Your task to perform on an android device: Search for the new nike air max 270 on Nike.com Image 0: 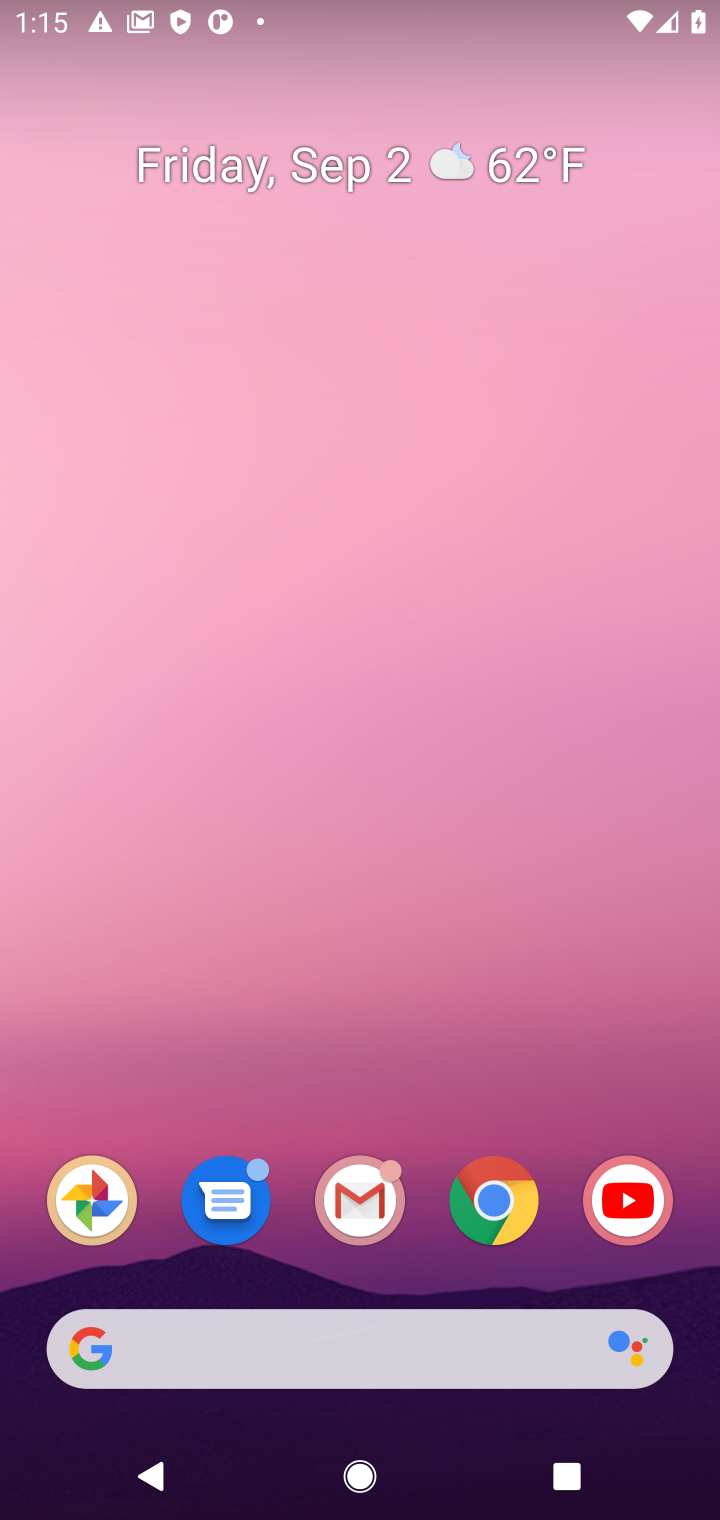
Step 0: click (508, 1192)
Your task to perform on an android device: Search for the new nike air max 270 on Nike.com Image 1: 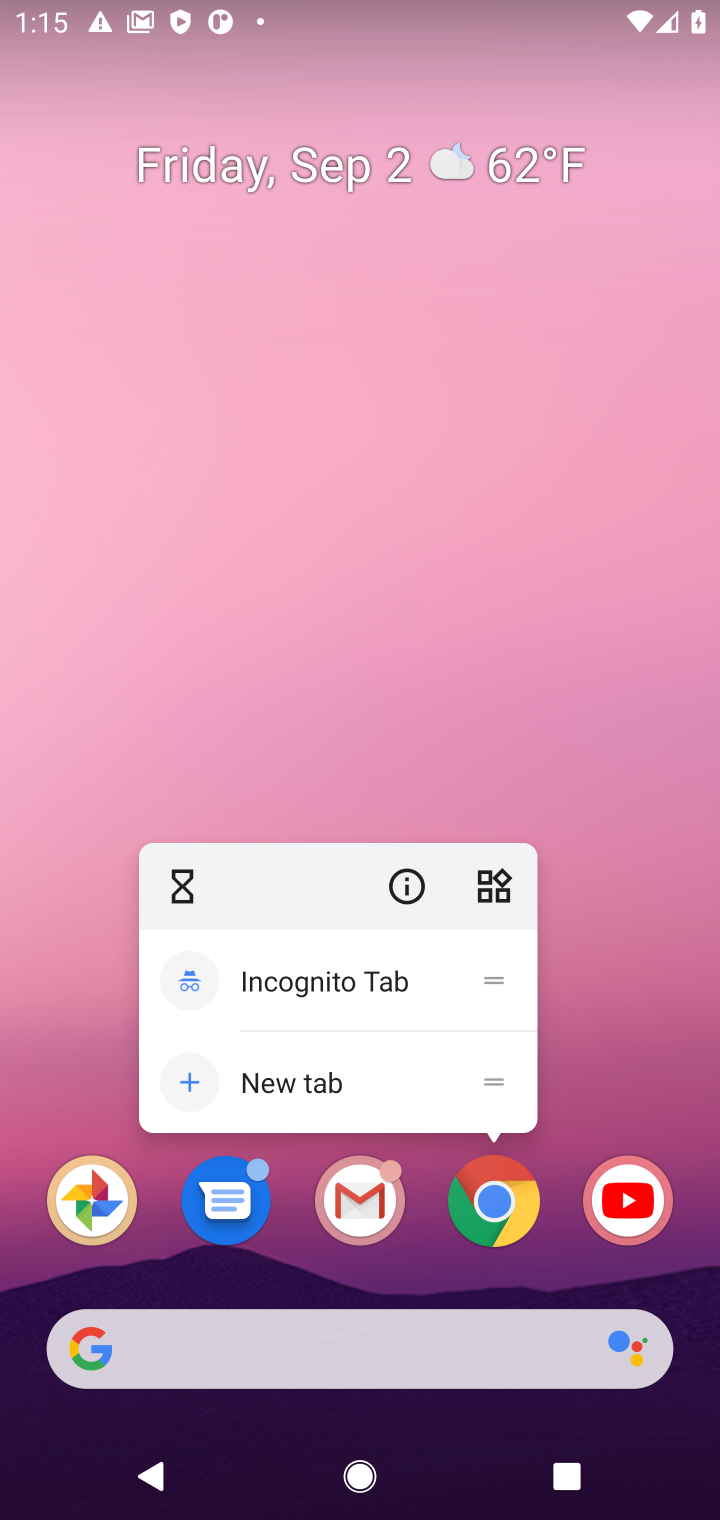
Step 1: click (508, 1193)
Your task to perform on an android device: Search for the new nike air max 270 on Nike.com Image 2: 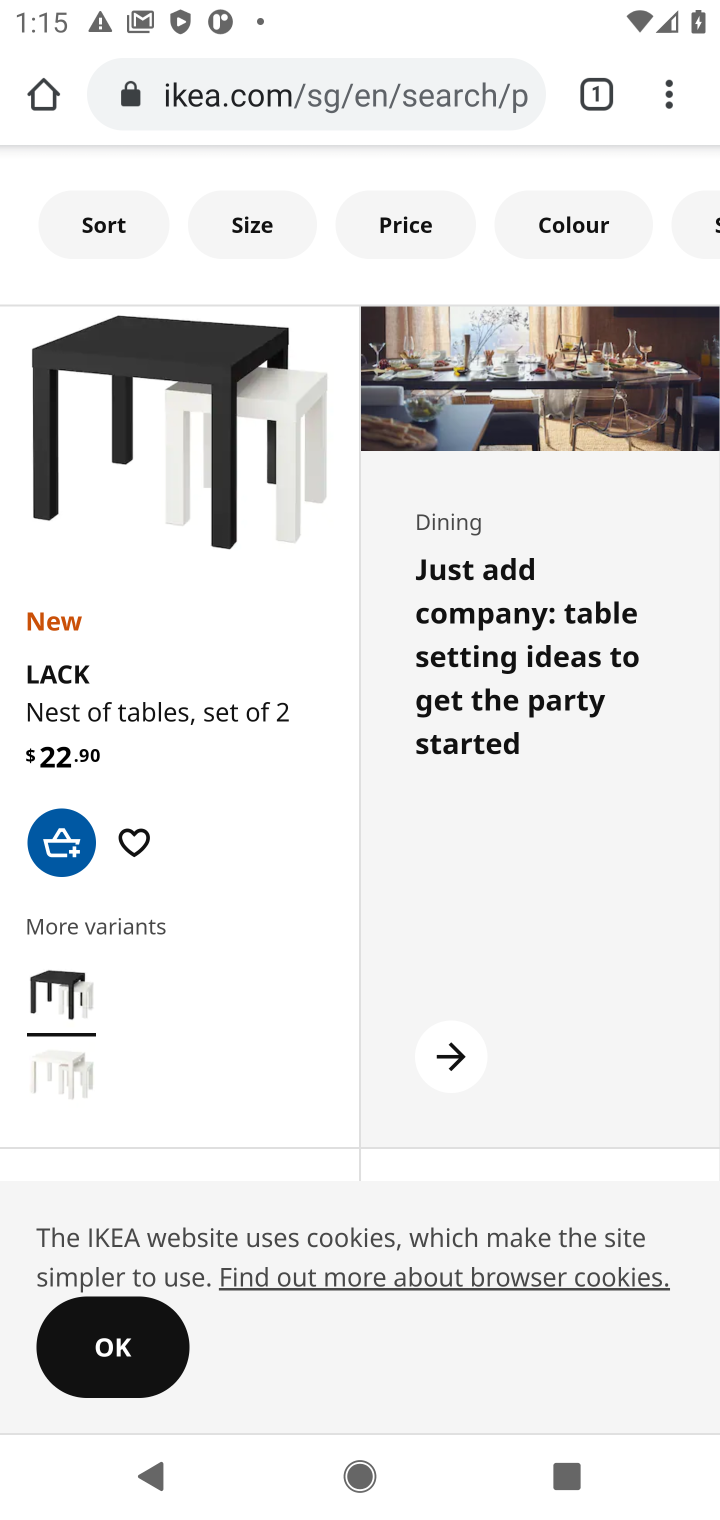
Step 2: click (421, 81)
Your task to perform on an android device: Search for the new nike air max 270 on Nike.com Image 3: 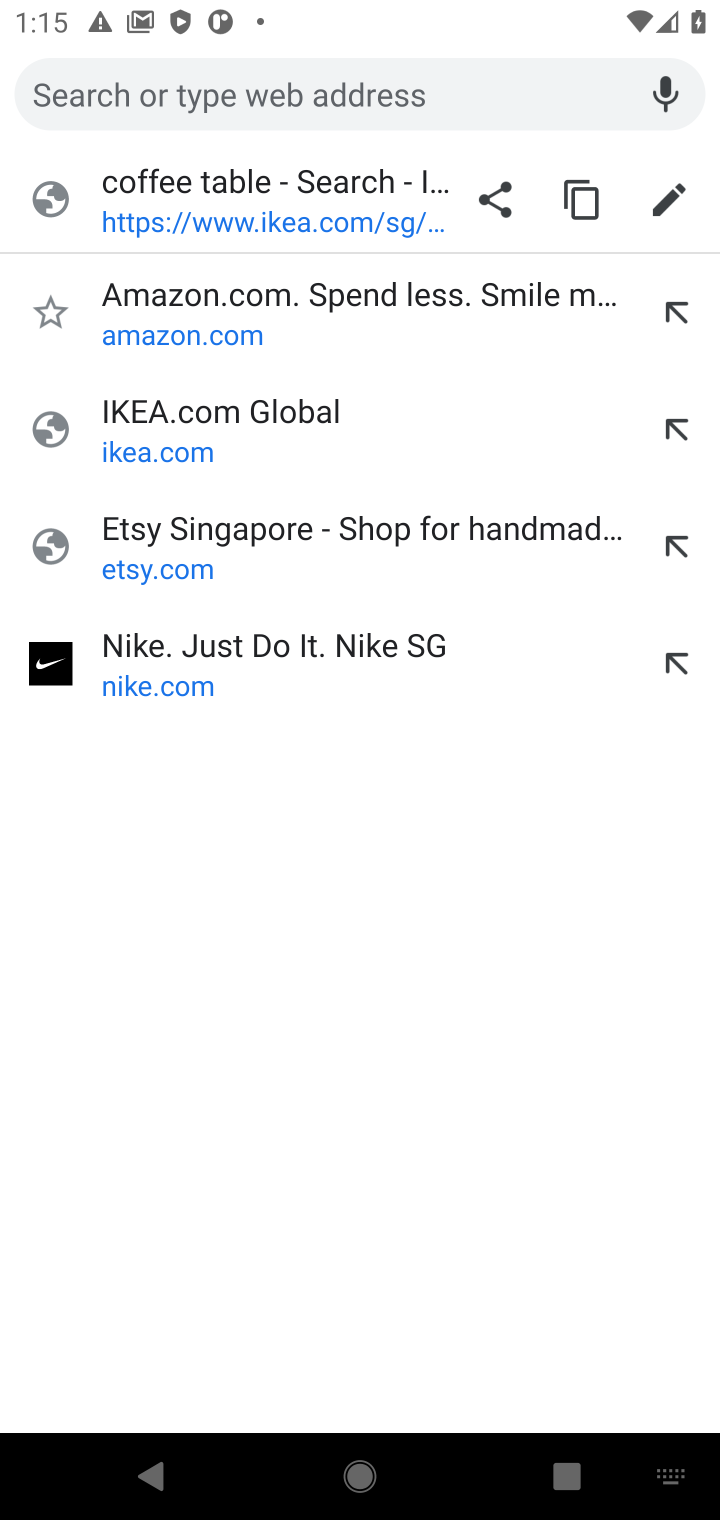
Step 3: type "Nike.com"
Your task to perform on an android device: Search for the new nike air max 270 on Nike.com Image 4: 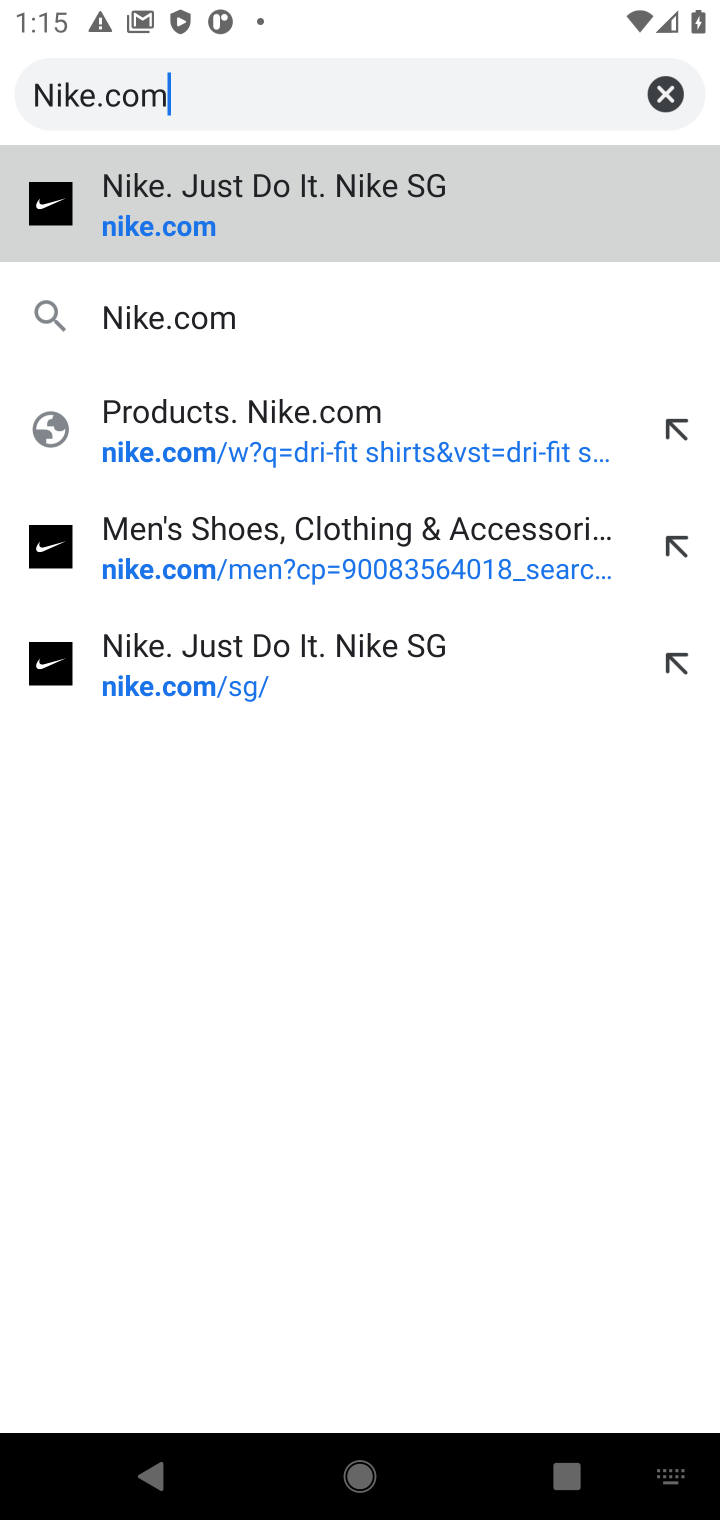
Step 4: press enter
Your task to perform on an android device: Search for the new nike air max 270 on Nike.com Image 5: 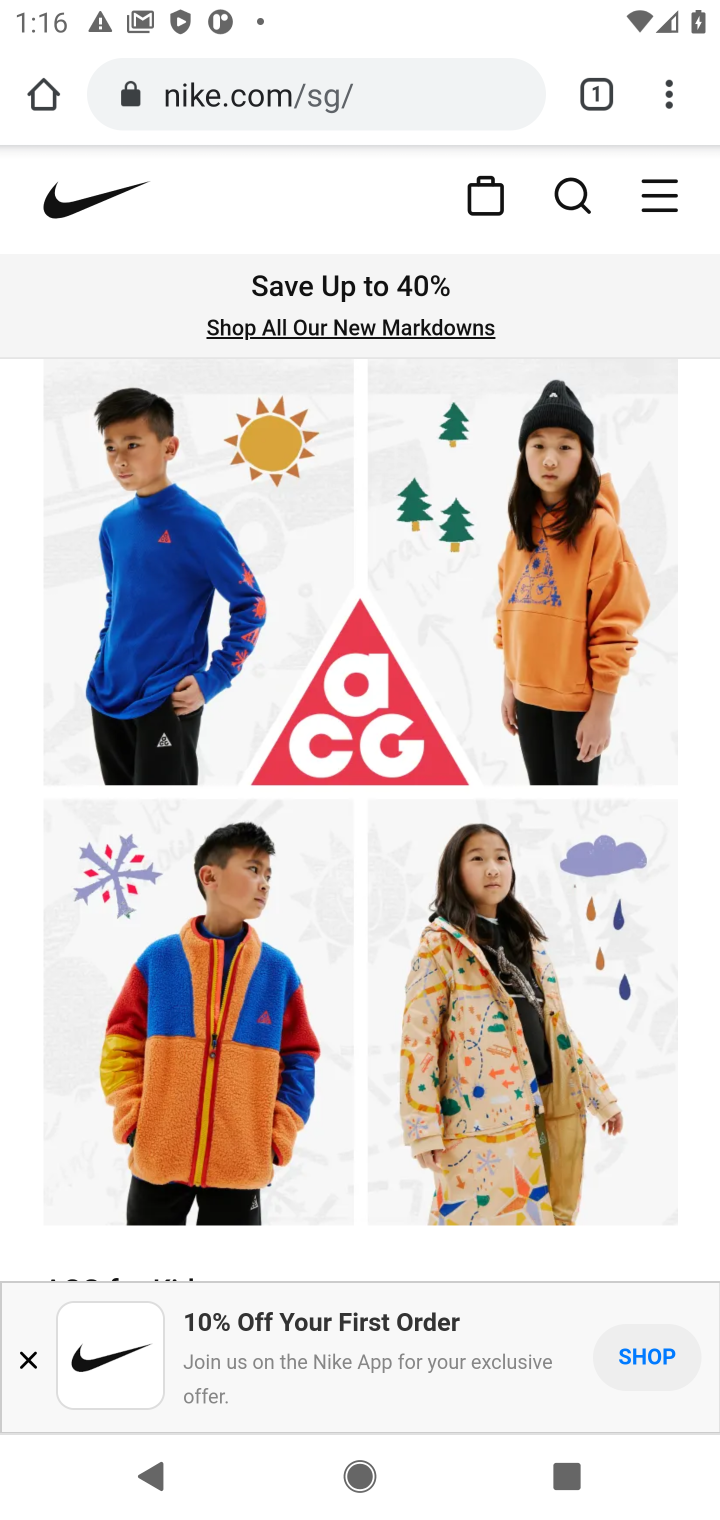
Step 5: click (574, 187)
Your task to perform on an android device: Search for the new nike air max 270 on Nike.com Image 6: 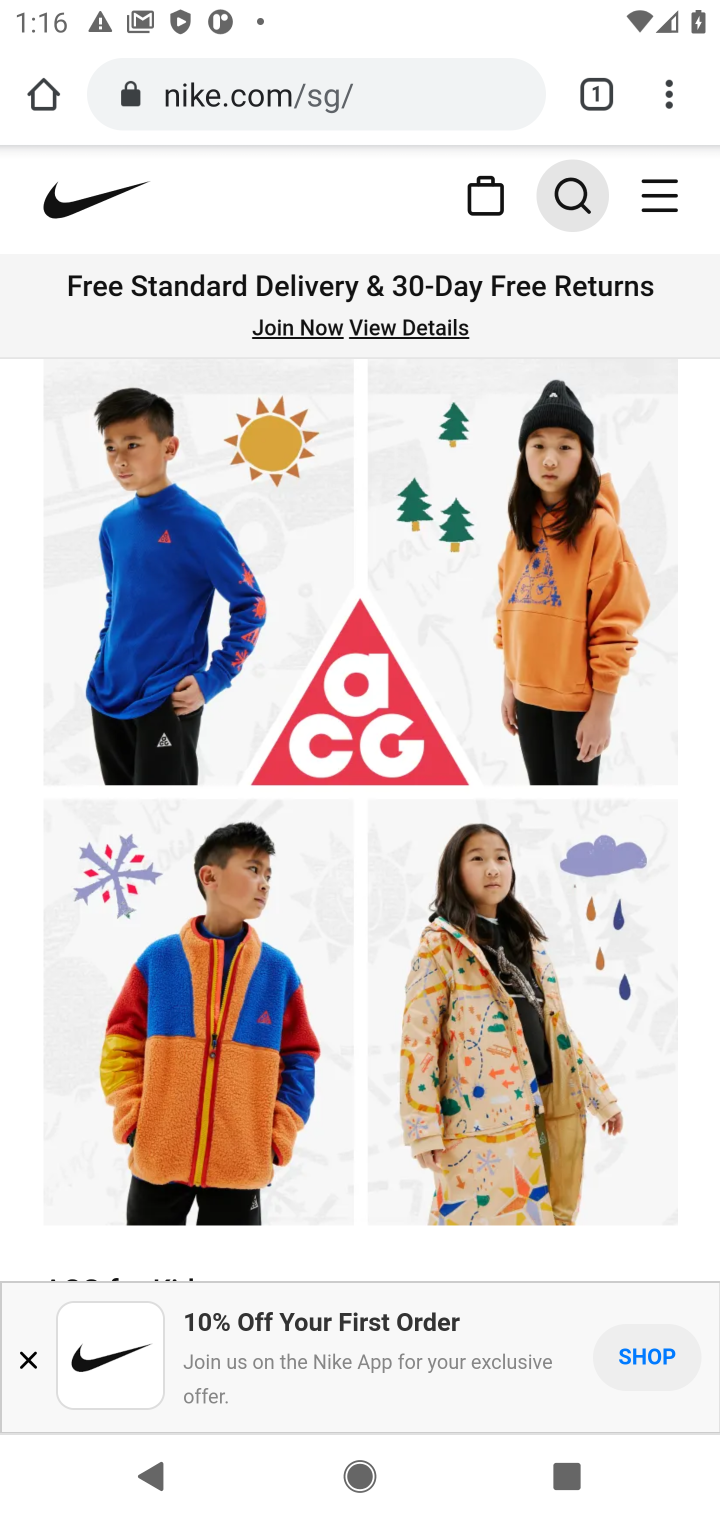
Step 6: click (564, 188)
Your task to perform on an android device: Search for the new nike air max 270 on Nike.com Image 7: 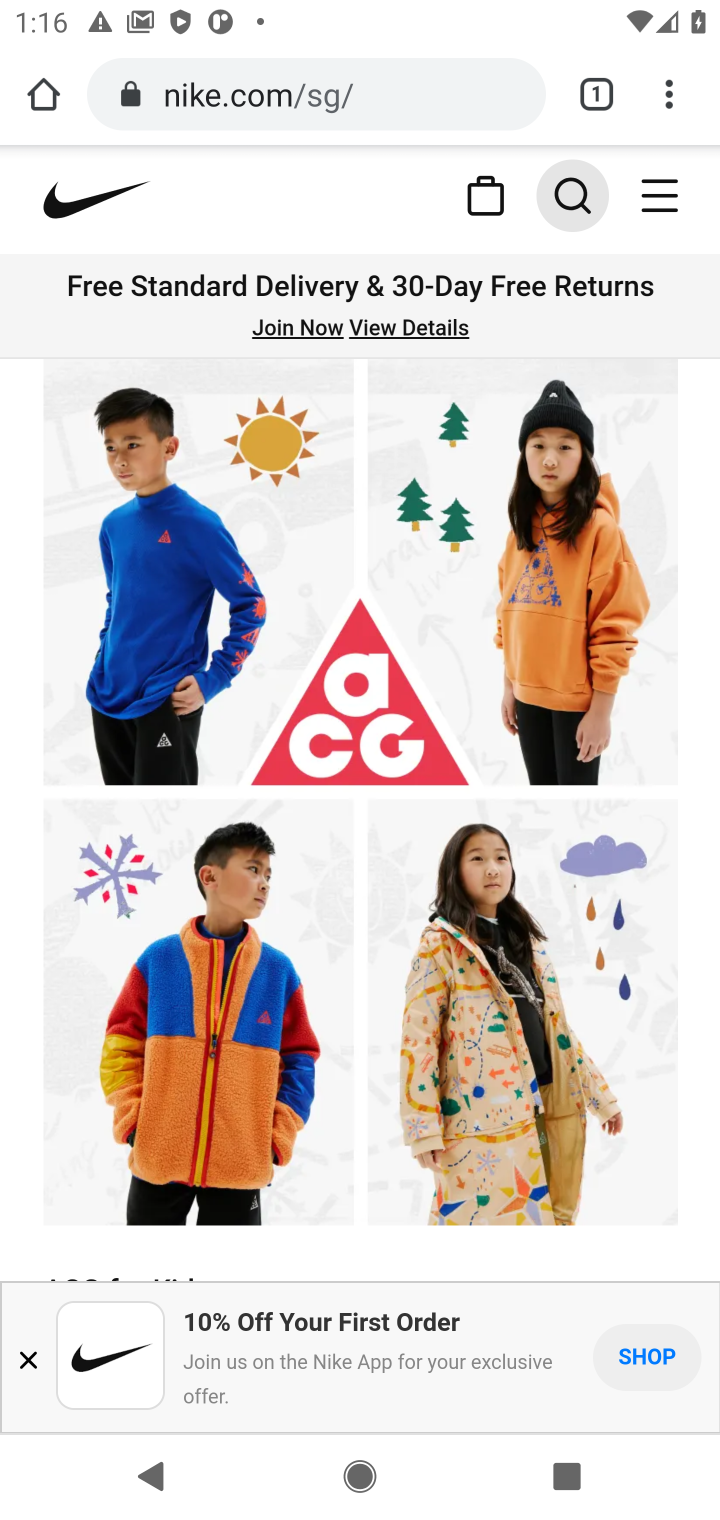
Step 7: drag from (103, 189) to (332, 188)
Your task to perform on an android device: Search for the new nike air max 270 on Nike.com Image 8: 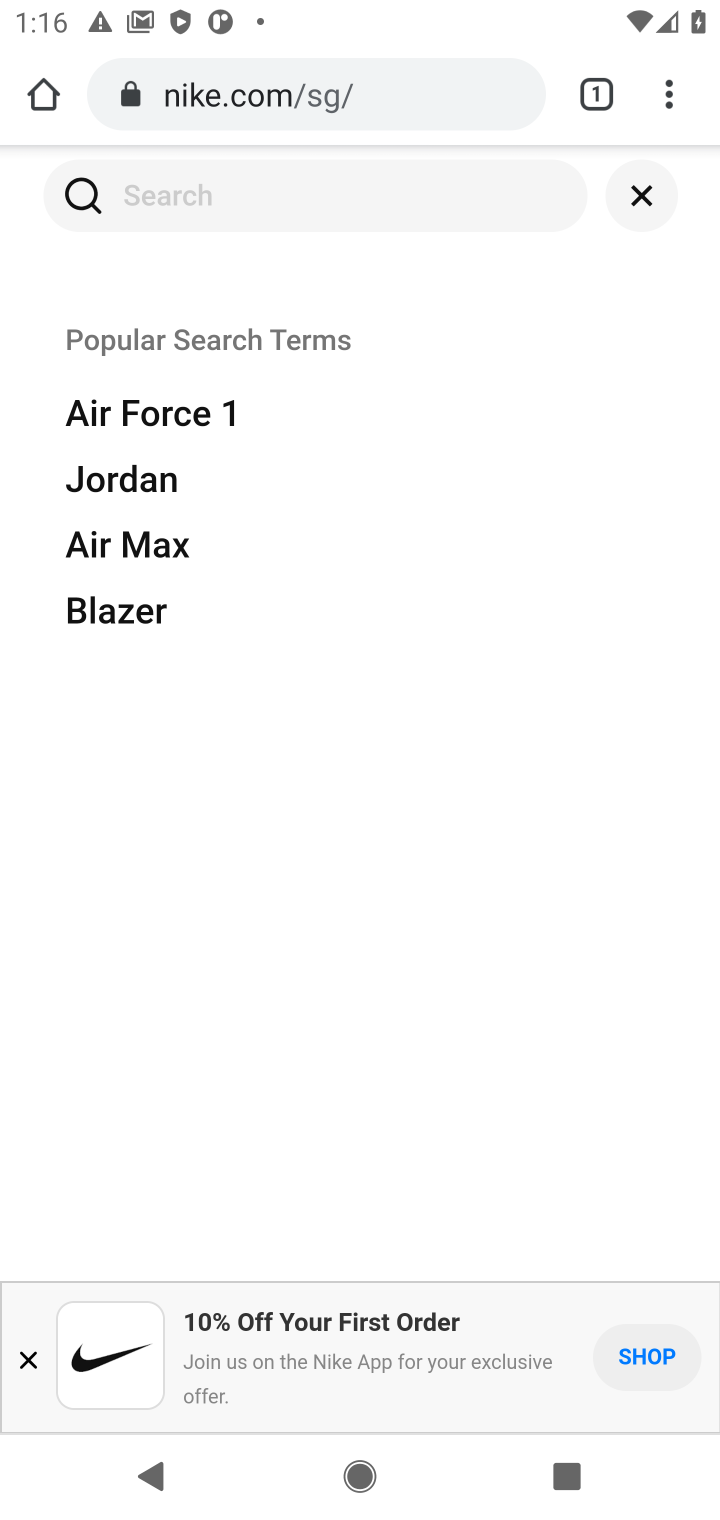
Step 8: click (173, 190)
Your task to perform on an android device: Search for the new nike air max 270 on Nike.com Image 9: 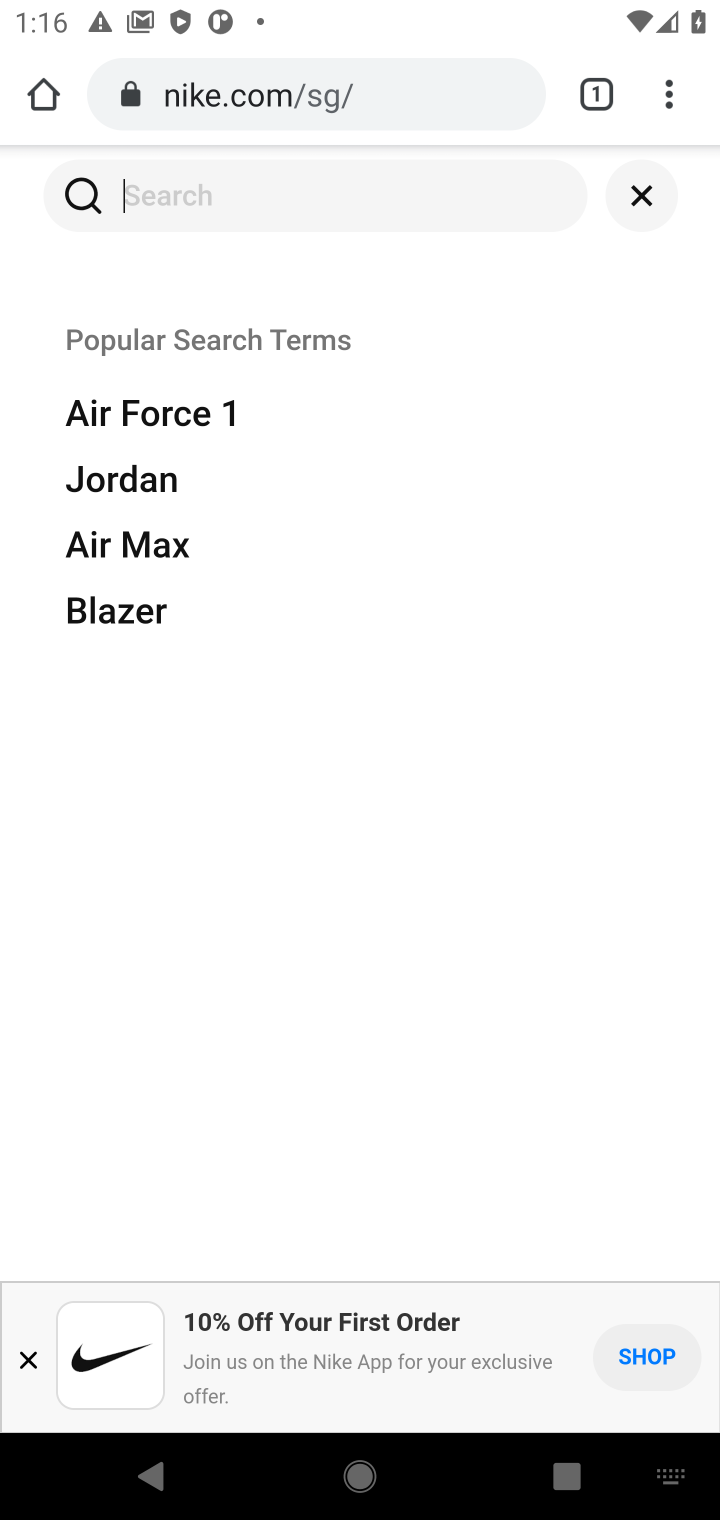
Step 9: type "air max 270"
Your task to perform on an android device: Search for the new nike air max 270 on Nike.com Image 10: 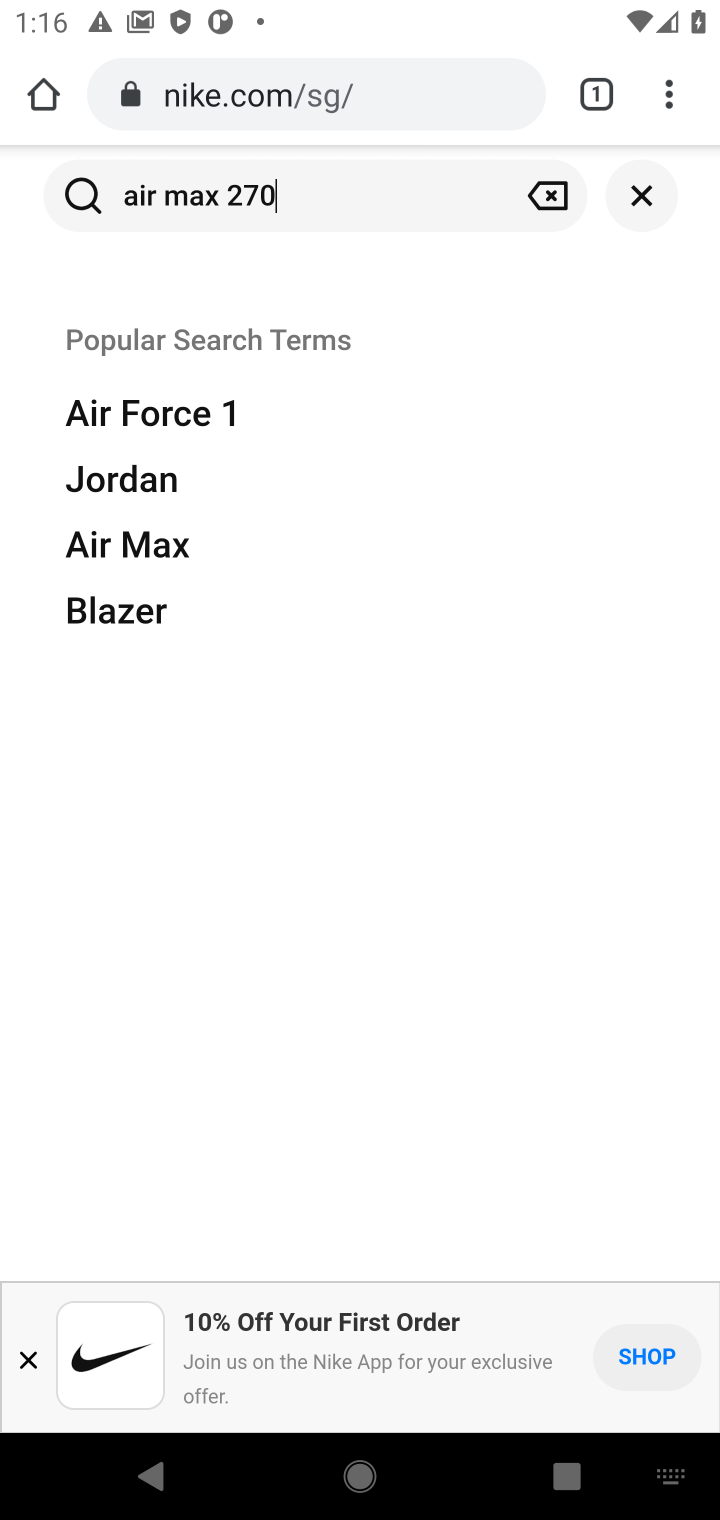
Step 10: press enter
Your task to perform on an android device: Search for the new nike air max 270 on Nike.com Image 11: 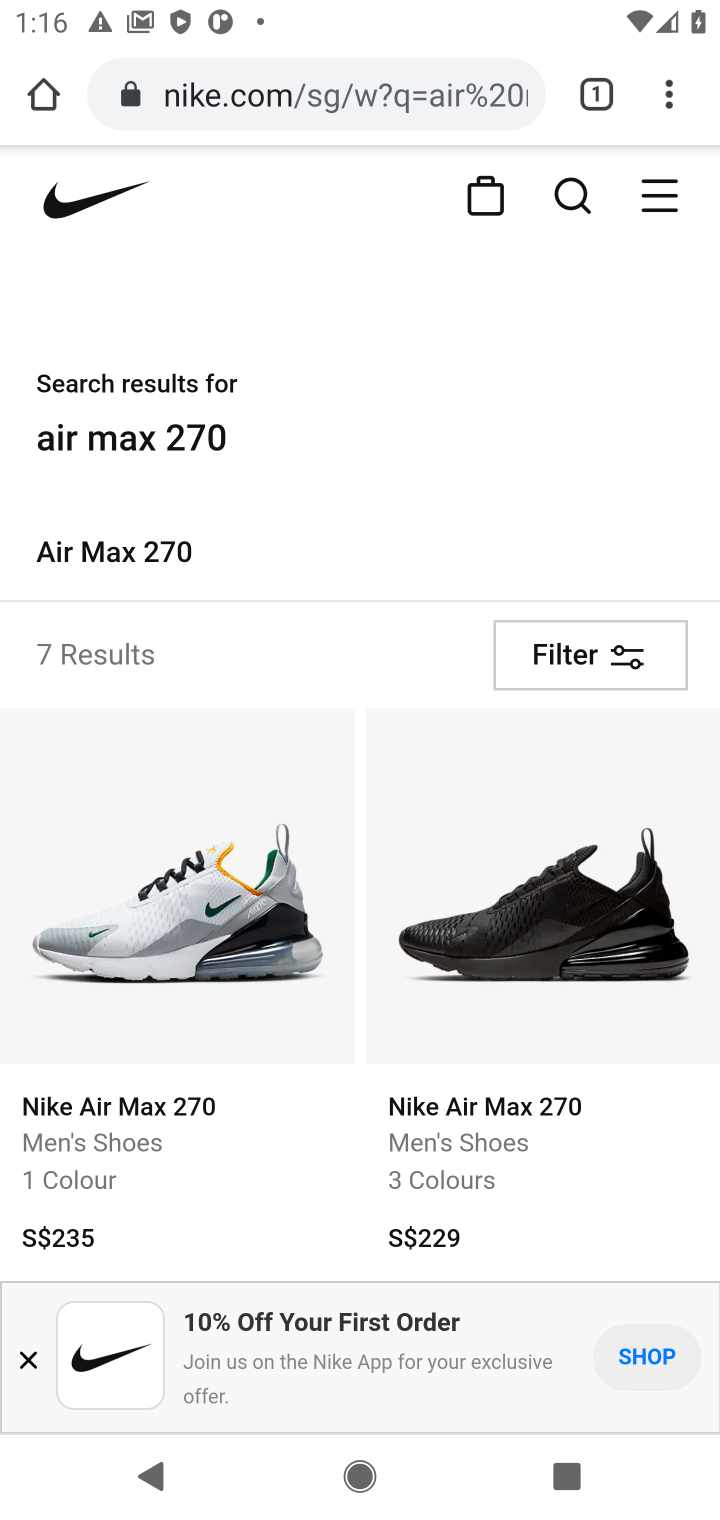
Step 11: task complete